Your task to perform on an android device: Open settings on Google Maps Image 0: 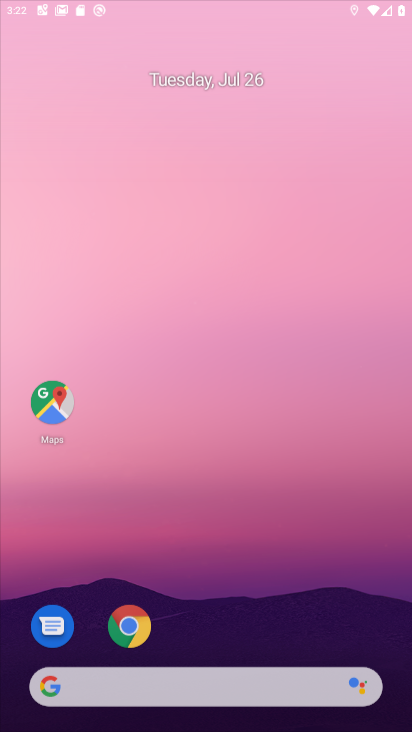
Step 0: drag from (192, 638) to (34, 0)
Your task to perform on an android device: Open settings on Google Maps Image 1: 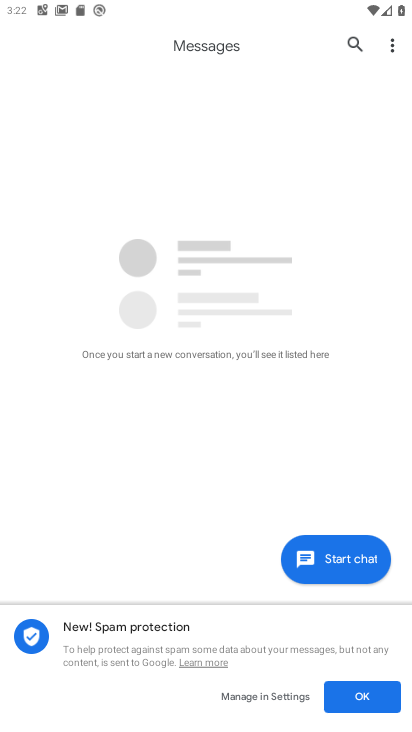
Step 1: press home button
Your task to perform on an android device: Open settings on Google Maps Image 2: 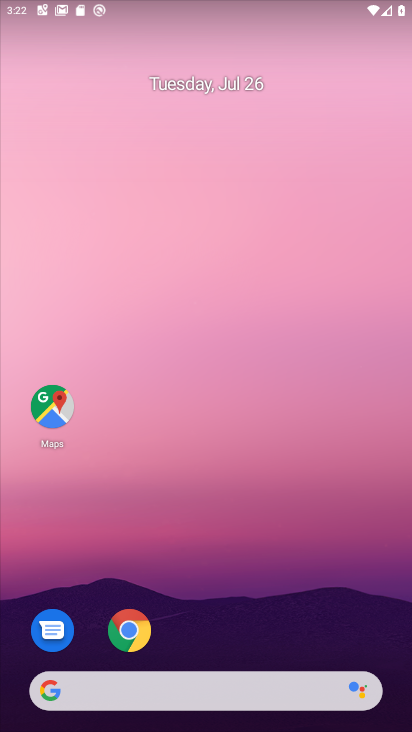
Step 2: click (45, 418)
Your task to perform on an android device: Open settings on Google Maps Image 3: 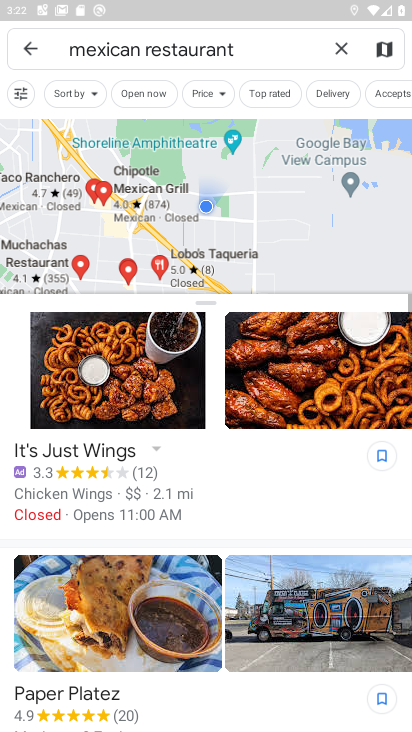
Step 3: click (28, 71)
Your task to perform on an android device: Open settings on Google Maps Image 4: 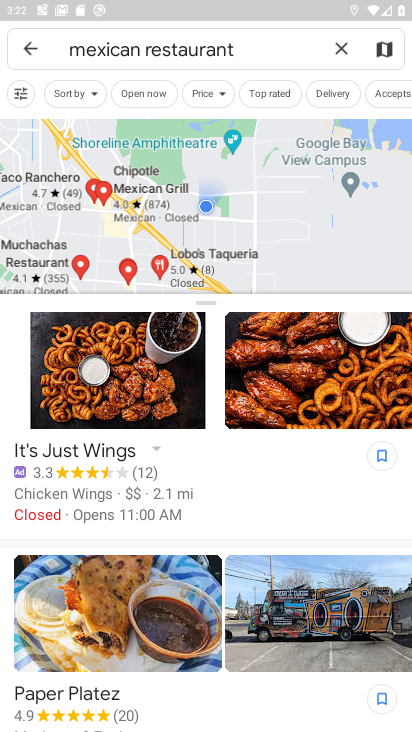
Step 4: click (32, 46)
Your task to perform on an android device: Open settings on Google Maps Image 5: 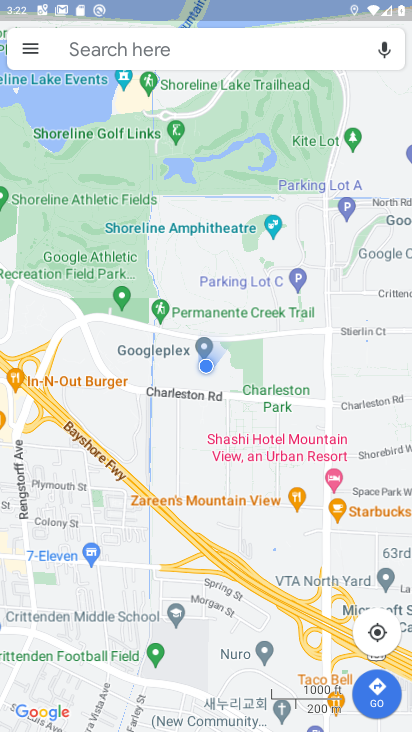
Step 5: click (32, 46)
Your task to perform on an android device: Open settings on Google Maps Image 6: 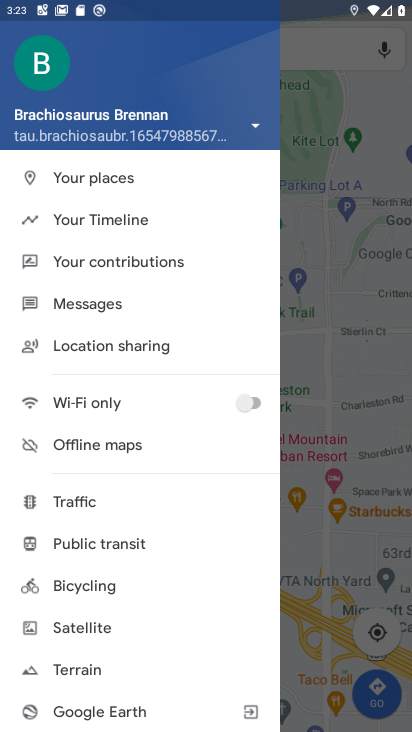
Step 6: drag from (67, 696) to (144, 209)
Your task to perform on an android device: Open settings on Google Maps Image 7: 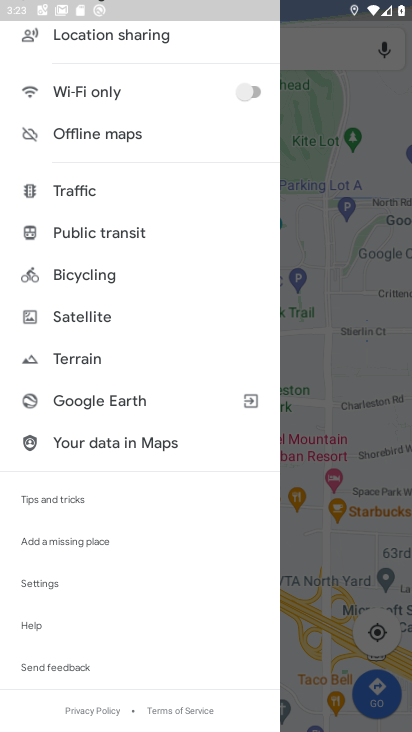
Step 7: click (79, 592)
Your task to perform on an android device: Open settings on Google Maps Image 8: 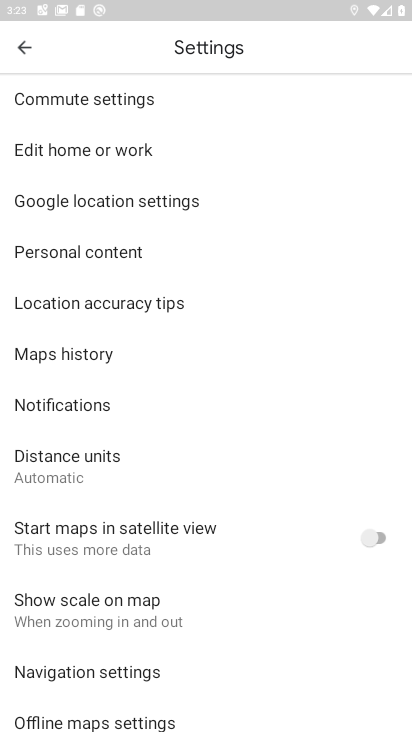
Step 8: task complete